Your task to perform on an android device: Open Google Maps Image 0: 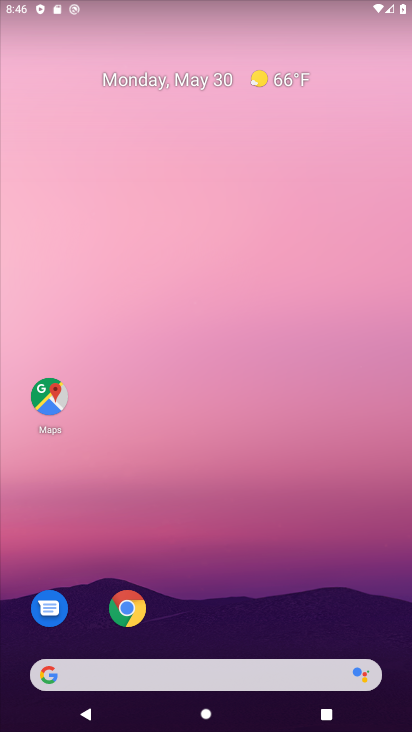
Step 0: drag from (227, 728) to (180, 64)
Your task to perform on an android device: Open Google Maps Image 1: 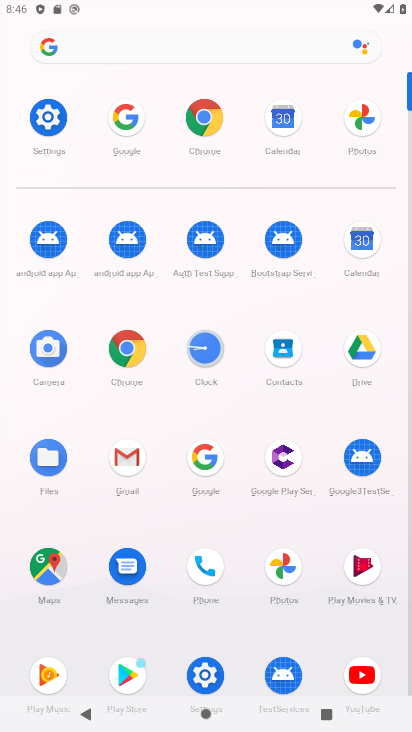
Step 1: click (43, 564)
Your task to perform on an android device: Open Google Maps Image 2: 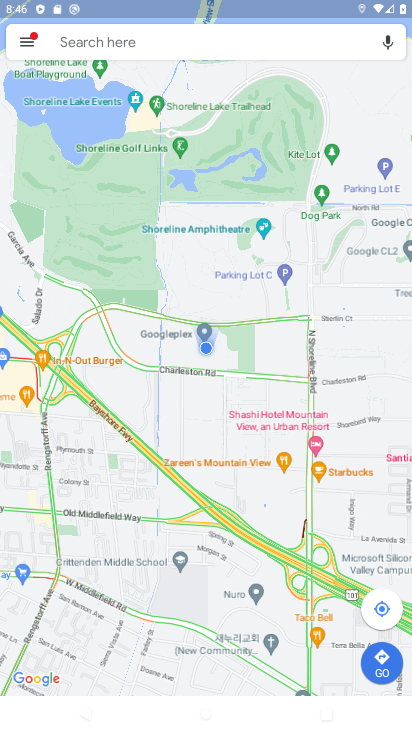
Step 2: task complete